Your task to perform on an android device: Go to battery settings Image 0: 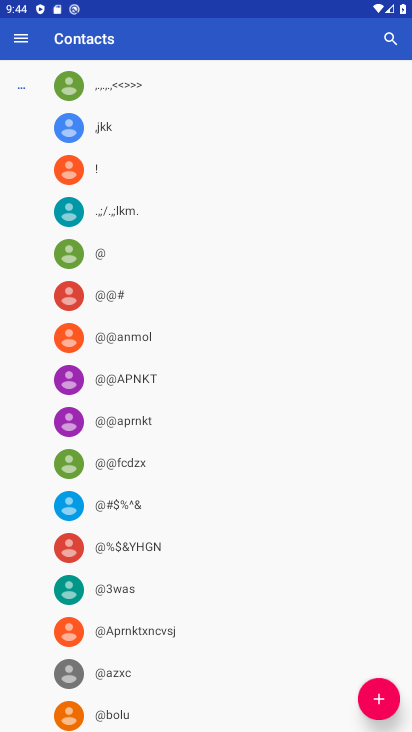
Step 0: press home button
Your task to perform on an android device: Go to battery settings Image 1: 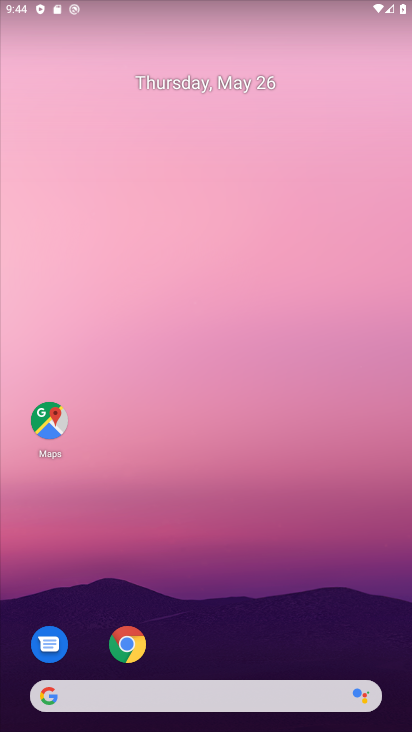
Step 1: drag from (352, 570) to (373, 122)
Your task to perform on an android device: Go to battery settings Image 2: 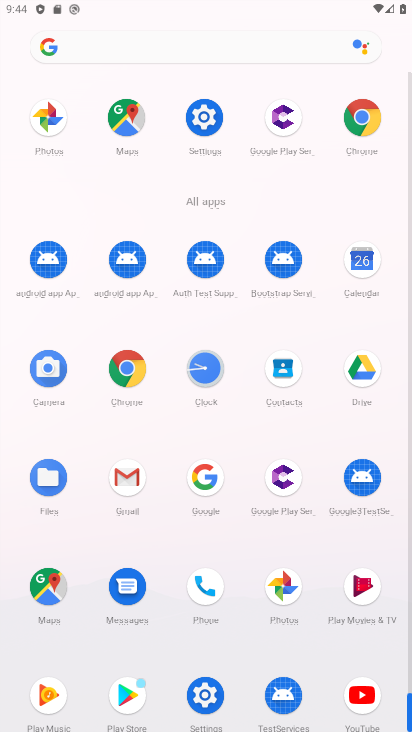
Step 2: click (195, 693)
Your task to perform on an android device: Go to battery settings Image 3: 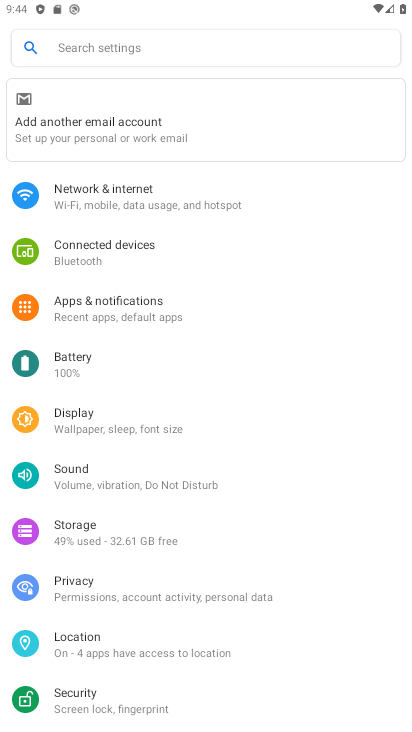
Step 3: drag from (270, 549) to (293, 365)
Your task to perform on an android device: Go to battery settings Image 4: 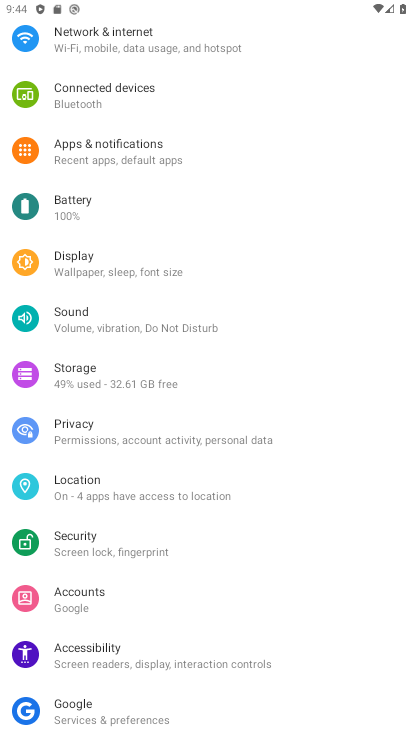
Step 4: drag from (316, 510) to (313, 355)
Your task to perform on an android device: Go to battery settings Image 5: 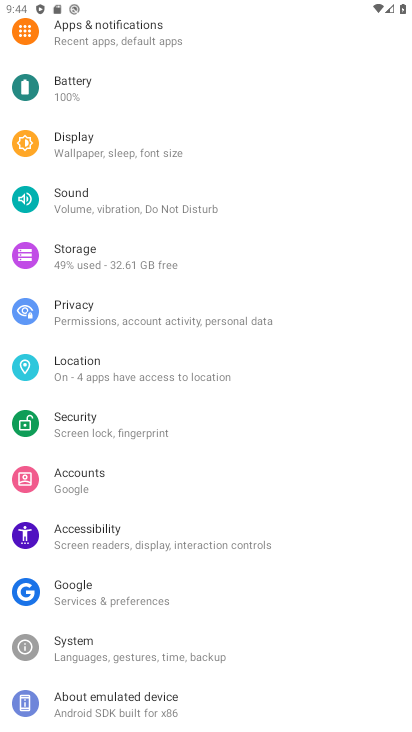
Step 5: drag from (358, 529) to (359, 271)
Your task to perform on an android device: Go to battery settings Image 6: 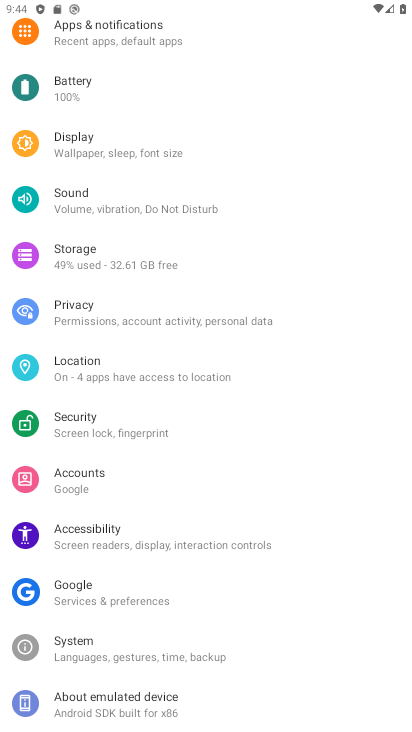
Step 6: drag from (349, 184) to (321, 407)
Your task to perform on an android device: Go to battery settings Image 7: 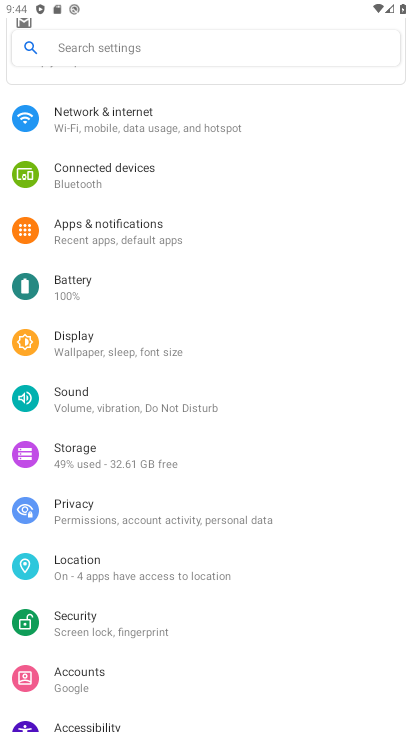
Step 7: drag from (324, 247) to (320, 335)
Your task to perform on an android device: Go to battery settings Image 8: 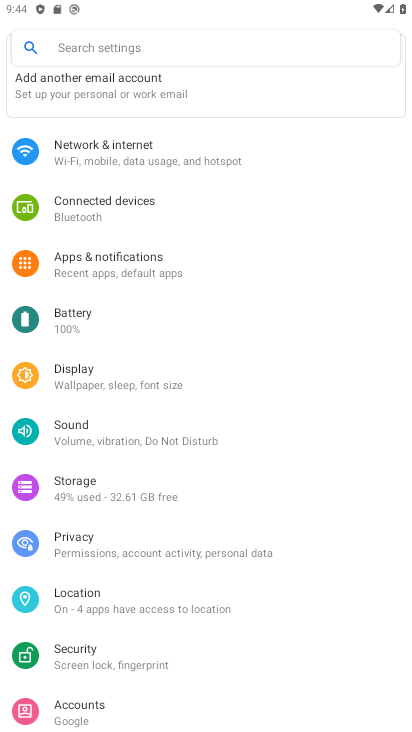
Step 8: click (320, 376)
Your task to perform on an android device: Go to battery settings Image 9: 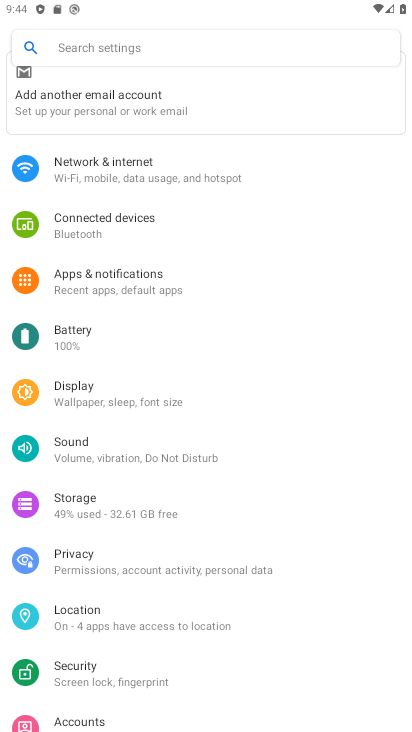
Step 9: click (179, 353)
Your task to perform on an android device: Go to battery settings Image 10: 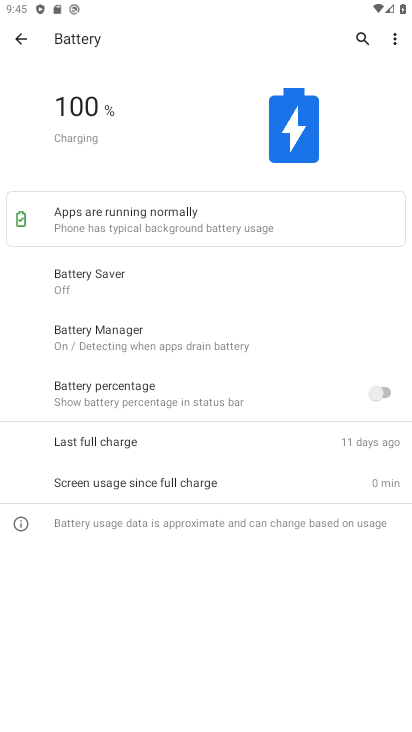
Step 10: task complete